Your task to perform on an android device: clear history in the chrome app Image 0: 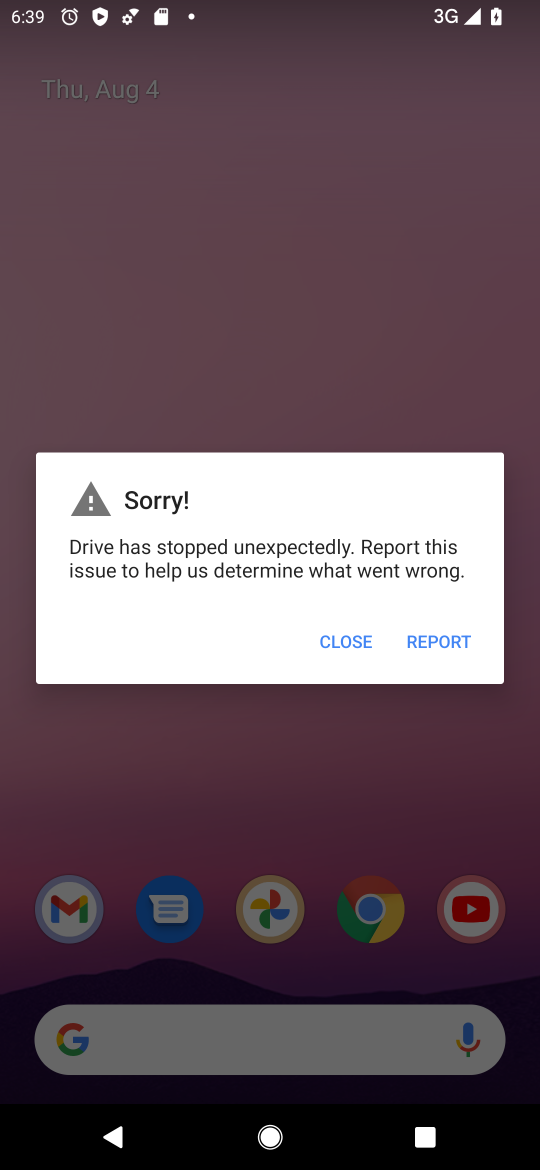
Step 0: click (365, 647)
Your task to perform on an android device: clear history in the chrome app Image 1: 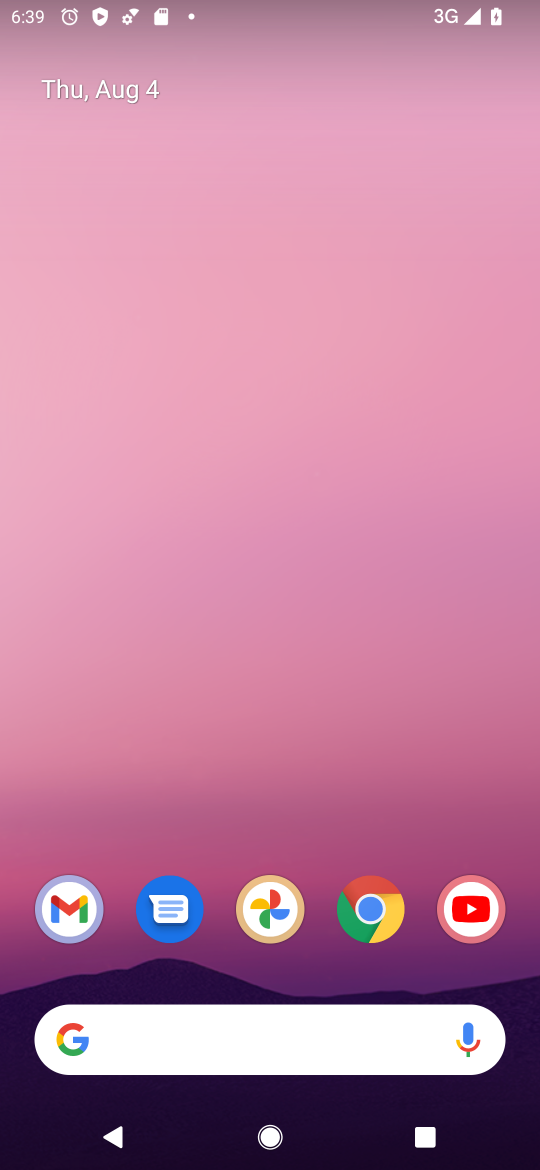
Step 1: drag from (217, 919) to (123, 57)
Your task to perform on an android device: clear history in the chrome app Image 2: 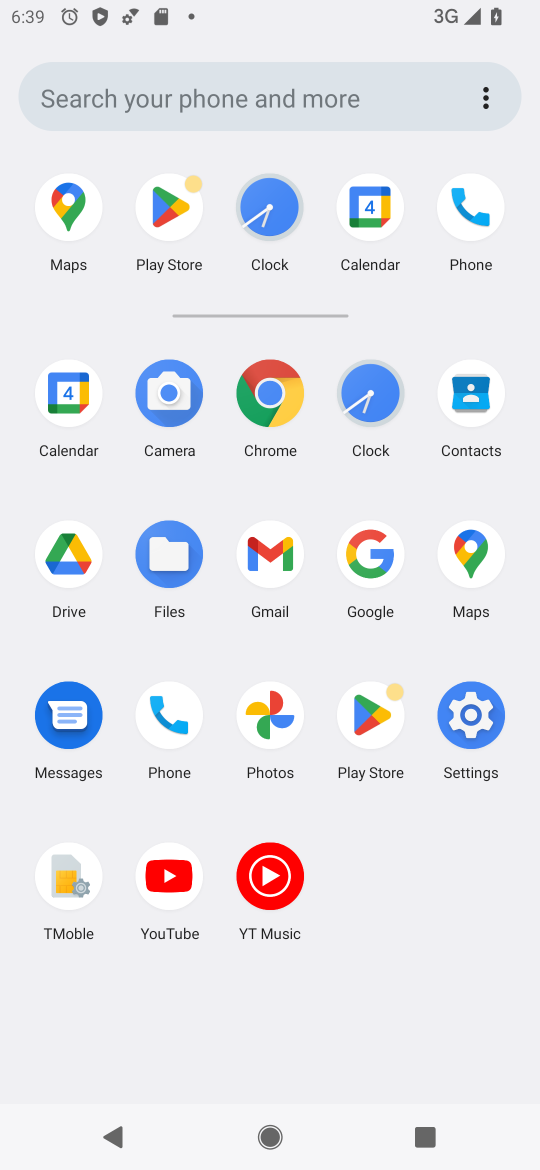
Step 2: click (280, 402)
Your task to perform on an android device: clear history in the chrome app Image 3: 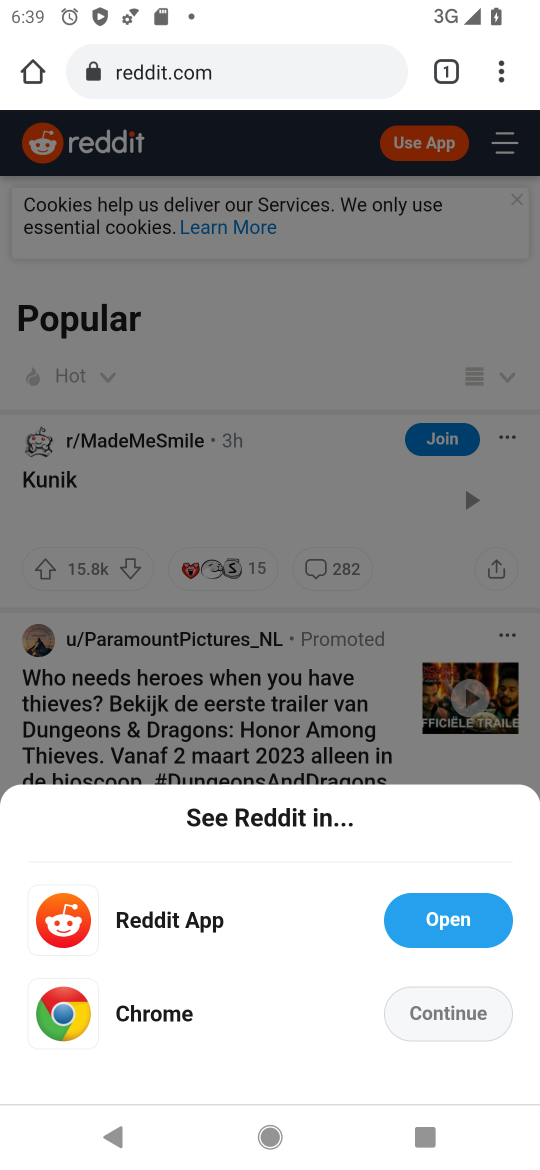
Step 3: drag from (497, 64) to (310, 394)
Your task to perform on an android device: clear history in the chrome app Image 4: 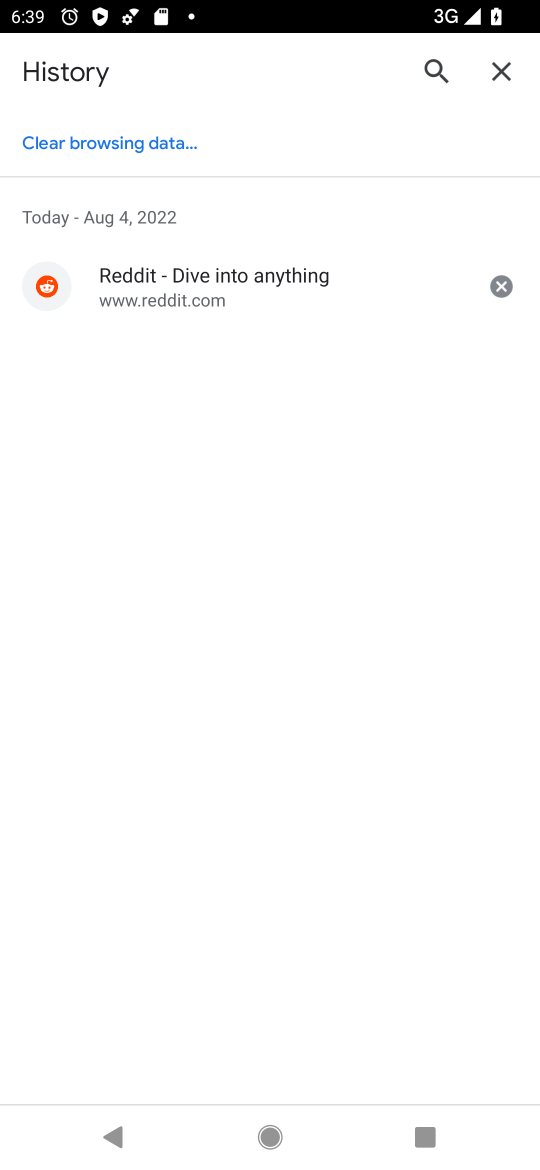
Step 4: click (94, 136)
Your task to perform on an android device: clear history in the chrome app Image 5: 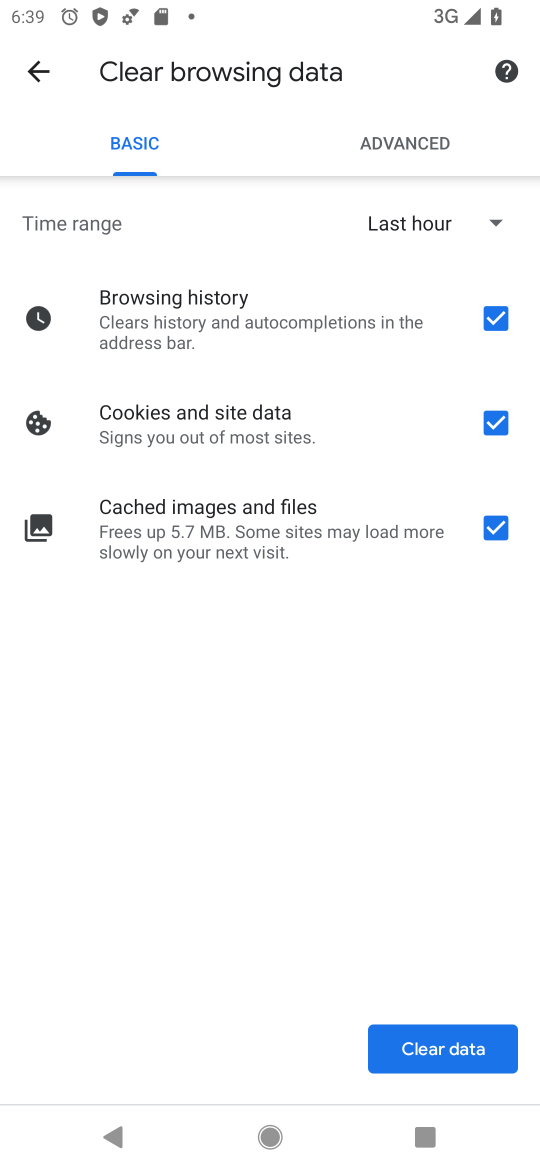
Step 5: click (483, 1058)
Your task to perform on an android device: clear history in the chrome app Image 6: 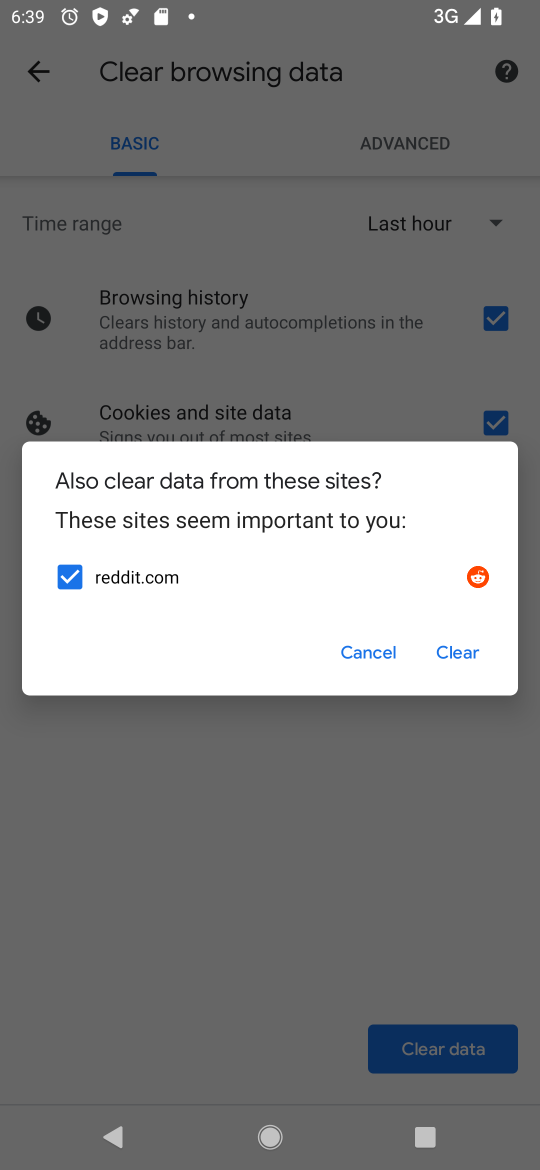
Step 6: click (354, 650)
Your task to perform on an android device: clear history in the chrome app Image 7: 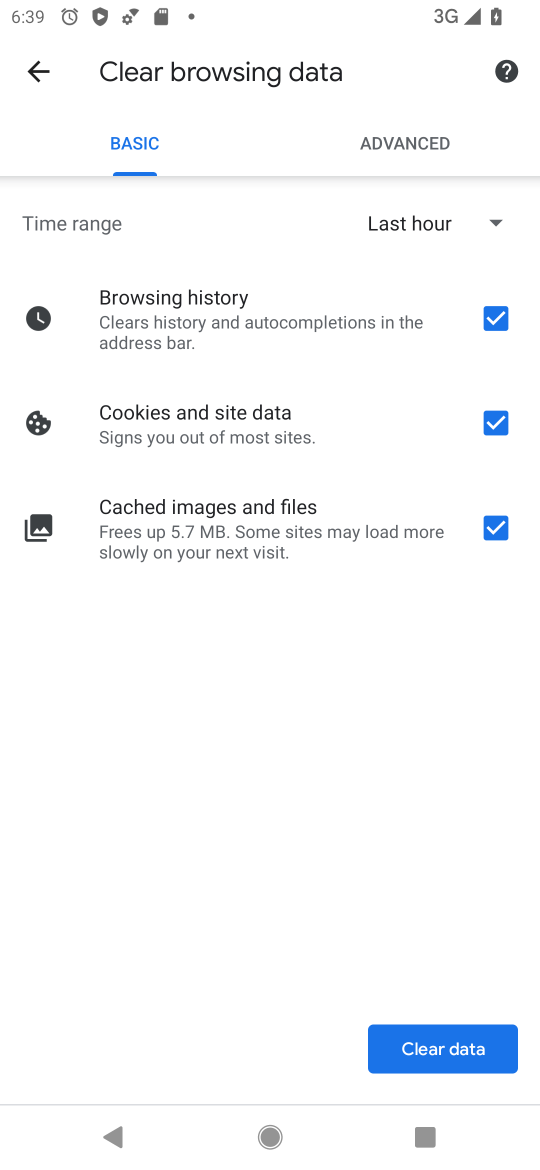
Step 7: click (492, 420)
Your task to perform on an android device: clear history in the chrome app Image 8: 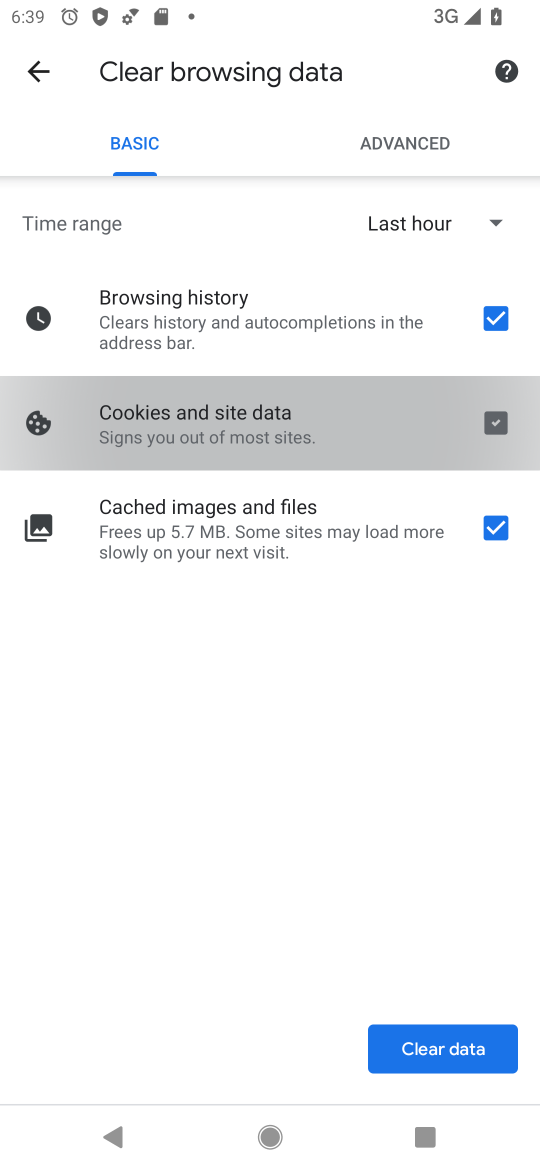
Step 8: click (495, 528)
Your task to perform on an android device: clear history in the chrome app Image 9: 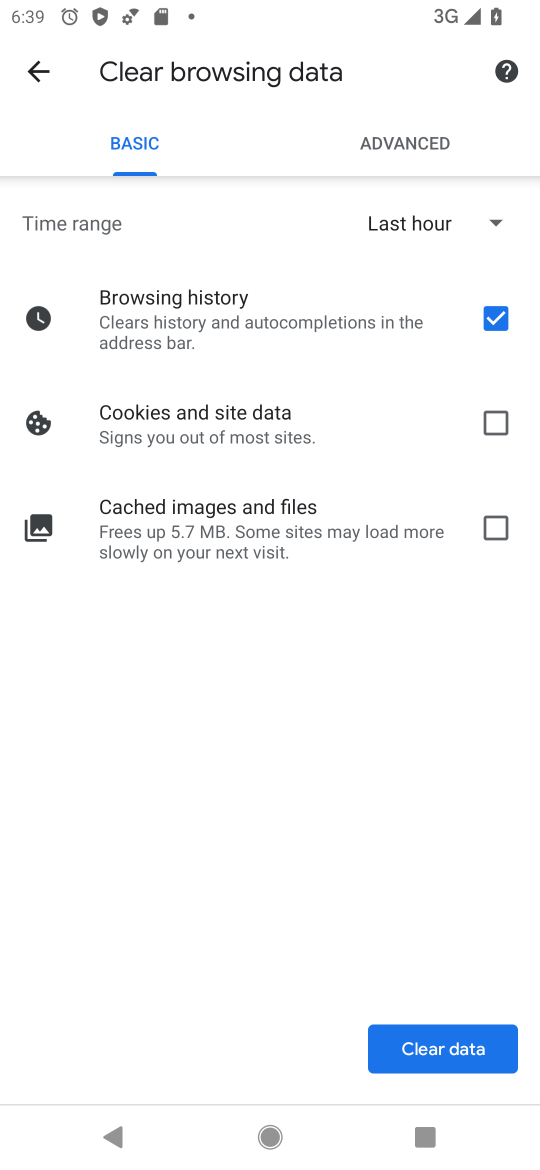
Step 9: click (431, 1042)
Your task to perform on an android device: clear history in the chrome app Image 10: 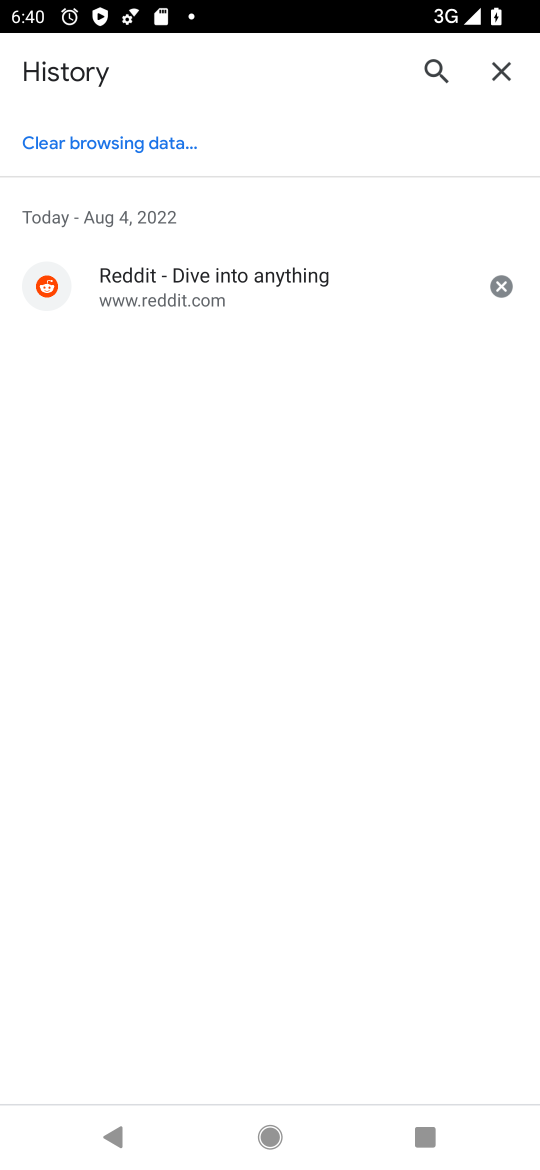
Step 10: task complete